Your task to perform on an android device: Open Yahoo.com Image 0: 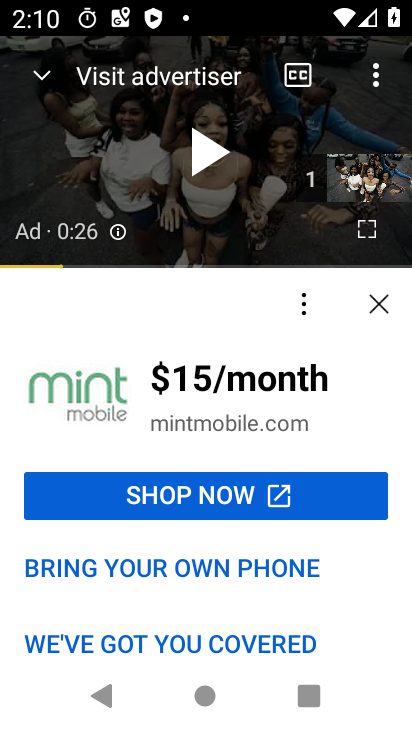
Step 0: press home button
Your task to perform on an android device: Open Yahoo.com Image 1: 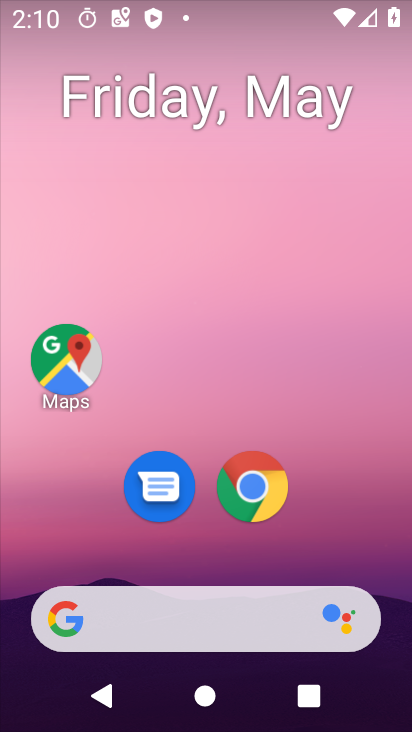
Step 1: click (245, 483)
Your task to perform on an android device: Open Yahoo.com Image 2: 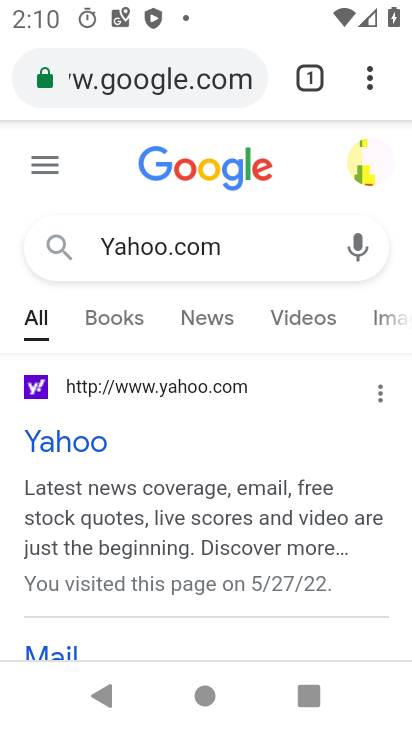
Step 2: task complete